Your task to perform on an android device: turn off improve location accuracy Image 0: 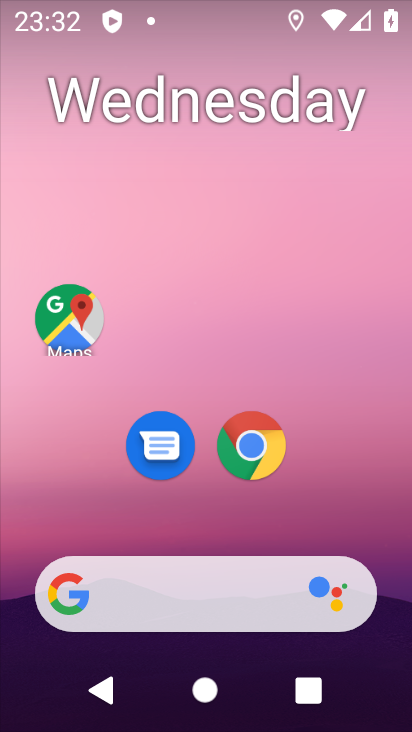
Step 0: drag from (213, 537) to (268, 50)
Your task to perform on an android device: turn off improve location accuracy Image 1: 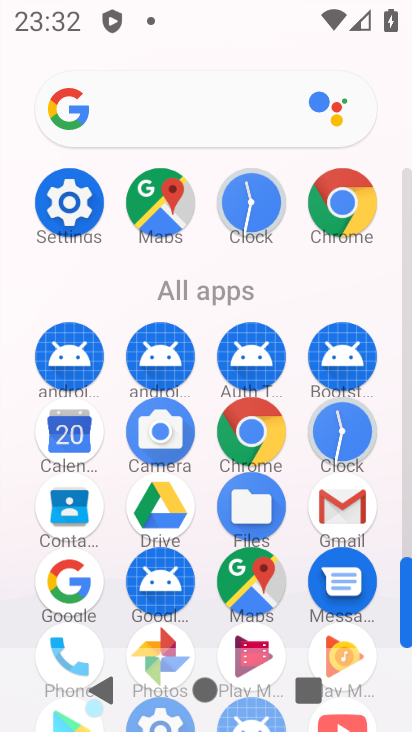
Step 1: click (81, 197)
Your task to perform on an android device: turn off improve location accuracy Image 2: 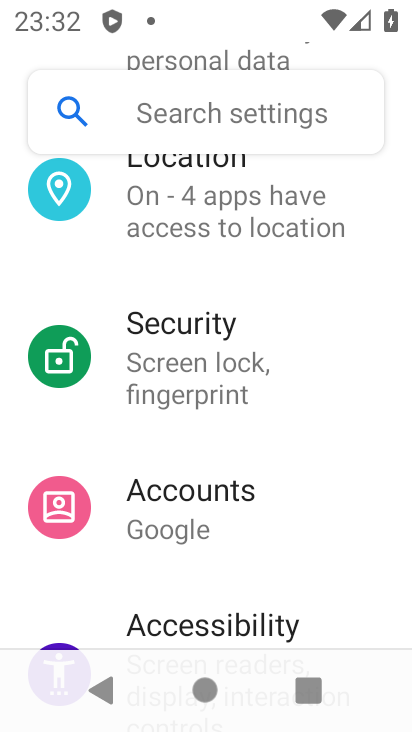
Step 2: drag from (234, 619) to (327, 97)
Your task to perform on an android device: turn off improve location accuracy Image 3: 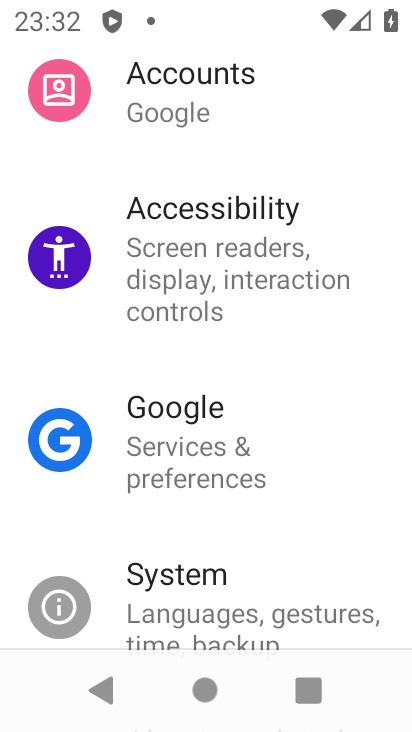
Step 3: drag from (189, 585) to (307, 58)
Your task to perform on an android device: turn off improve location accuracy Image 4: 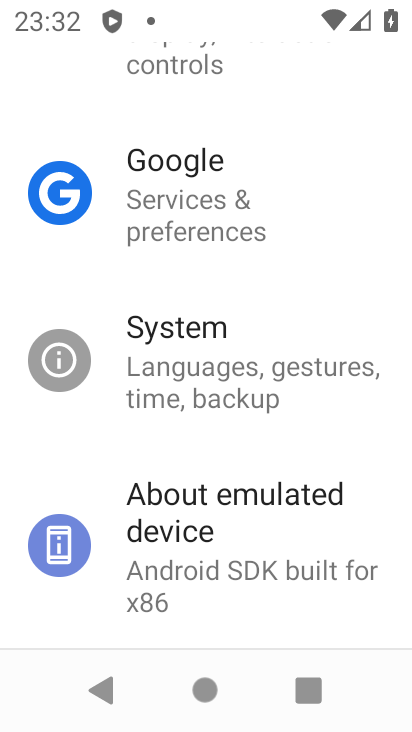
Step 4: drag from (267, 120) to (195, 637)
Your task to perform on an android device: turn off improve location accuracy Image 5: 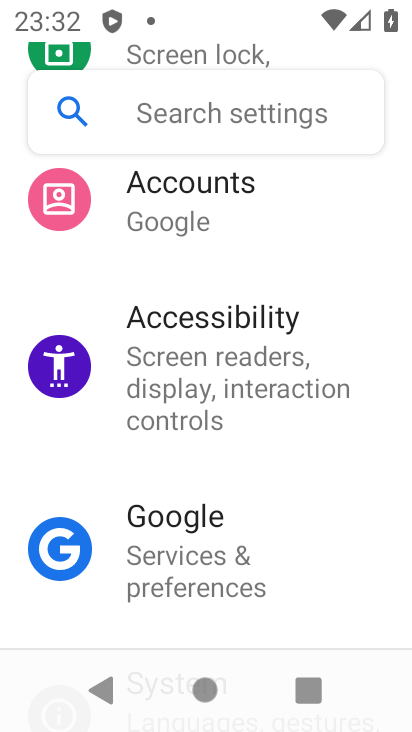
Step 5: drag from (223, 269) to (176, 602)
Your task to perform on an android device: turn off improve location accuracy Image 6: 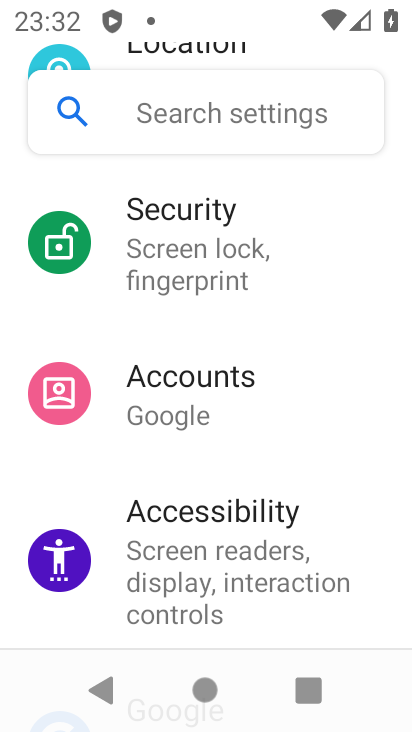
Step 6: drag from (211, 222) to (154, 636)
Your task to perform on an android device: turn off improve location accuracy Image 7: 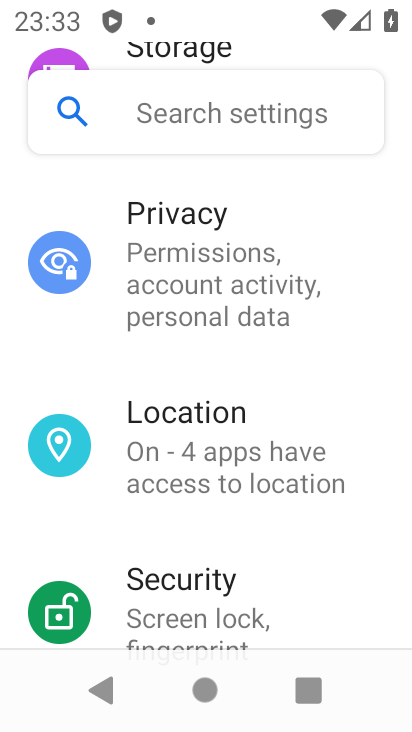
Step 7: click (167, 441)
Your task to perform on an android device: turn off improve location accuracy Image 8: 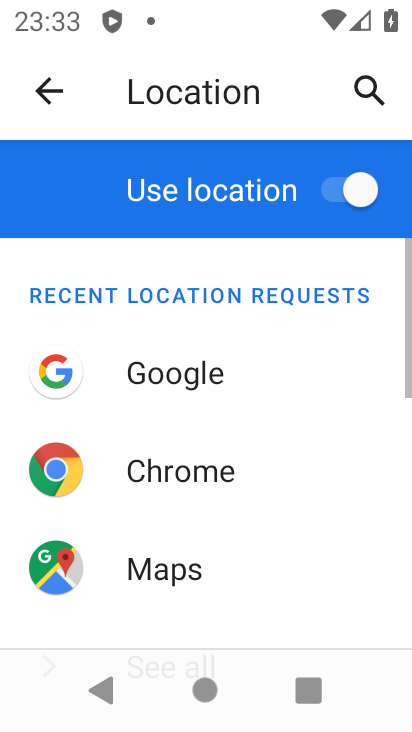
Step 8: click (272, 161)
Your task to perform on an android device: turn off improve location accuracy Image 9: 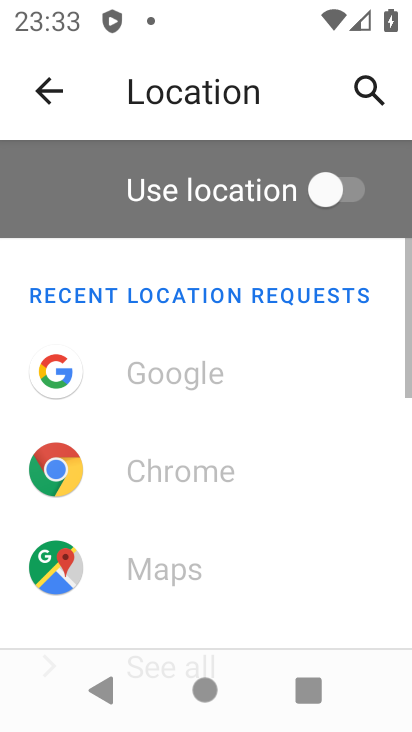
Step 9: drag from (209, 586) to (284, 176)
Your task to perform on an android device: turn off improve location accuracy Image 10: 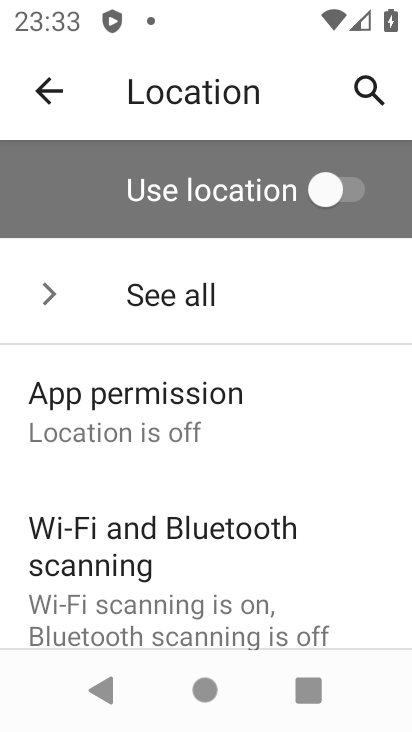
Step 10: drag from (207, 540) to (305, 197)
Your task to perform on an android device: turn off improve location accuracy Image 11: 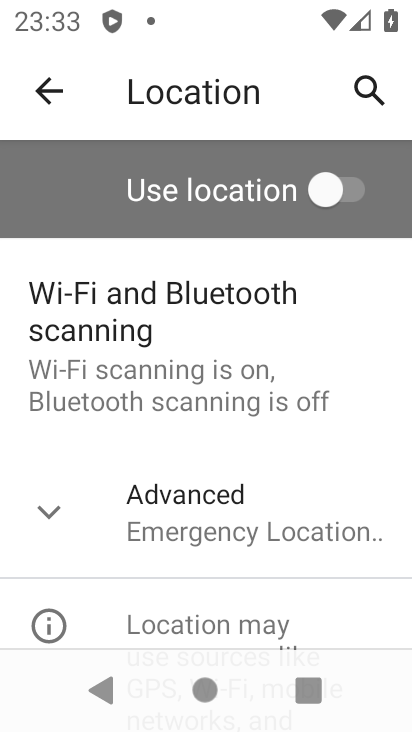
Step 11: drag from (208, 540) to (298, 182)
Your task to perform on an android device: turn off improve location accuracy Image 12: 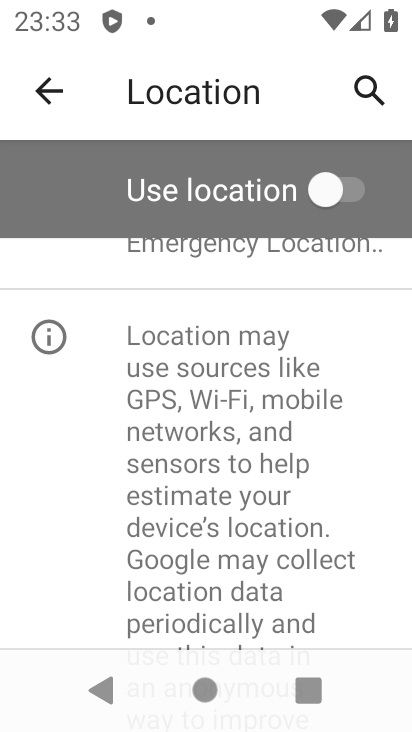
Step 12: click (233, 278)
Your task to perform on an android device: turn off improve location accuracy Image 13: 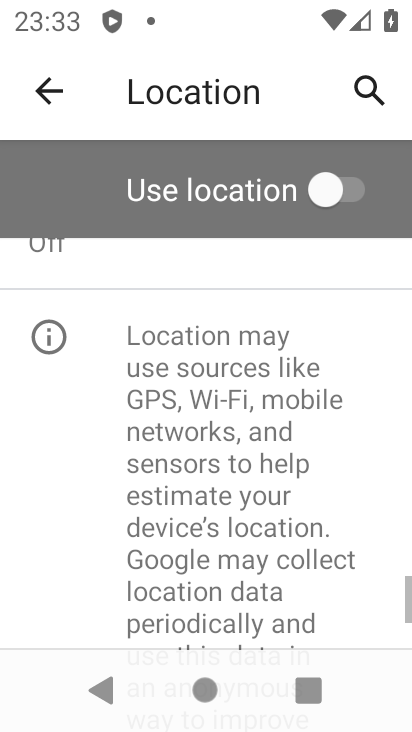
Step 13: drag from (237, 314) to (187, 662)
Your task to perform on an android device: turn off improve location accuracy Image 14: 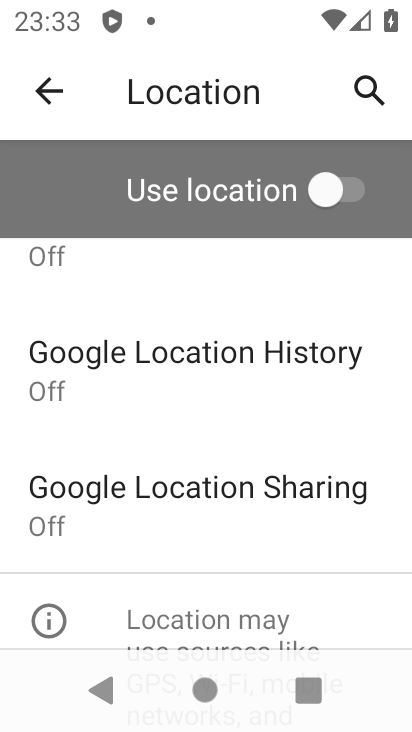
Step 14: drag from (204, 326) to (164, 618)
Your task to perform on an android device: turn off improve location accuracy Image 15: 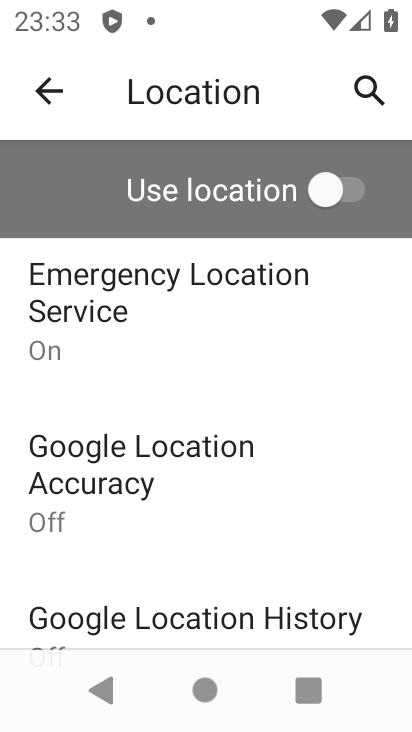
Step 15: click (115, 497)
Your task to perform on an android device: turn off improve location accuracy Image 16: 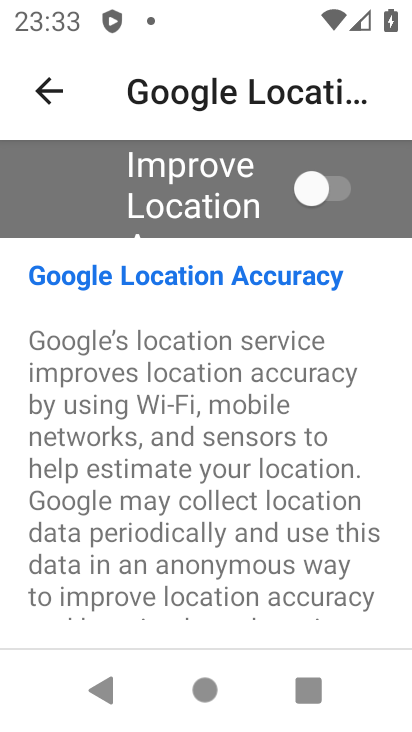
Step 16: task complete